Your task to perform on an android device: set an alarm Image 0: 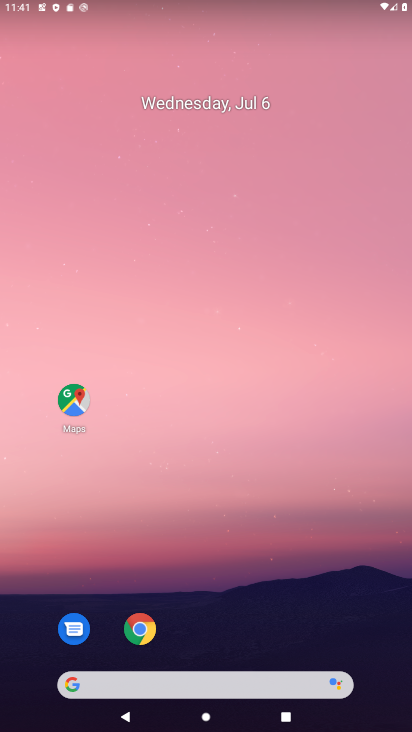
Step 0: drag from (241, 638) to (241, 202)
Your task to perform on an android device: set an alarm Image 1: 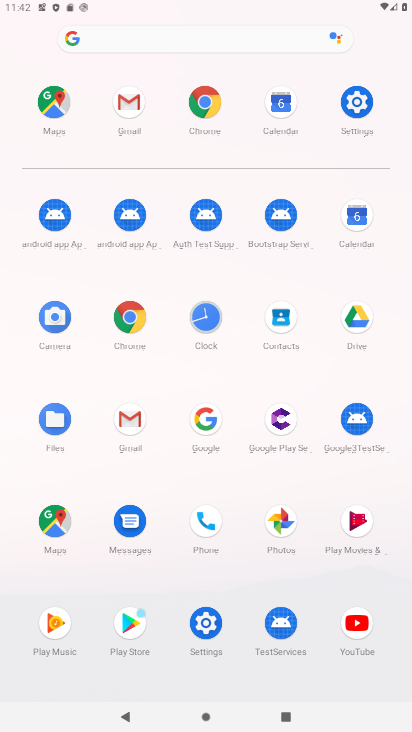
Step 1: click (193, 317)
Your task to perform on an android device: set an alarm Image 2: 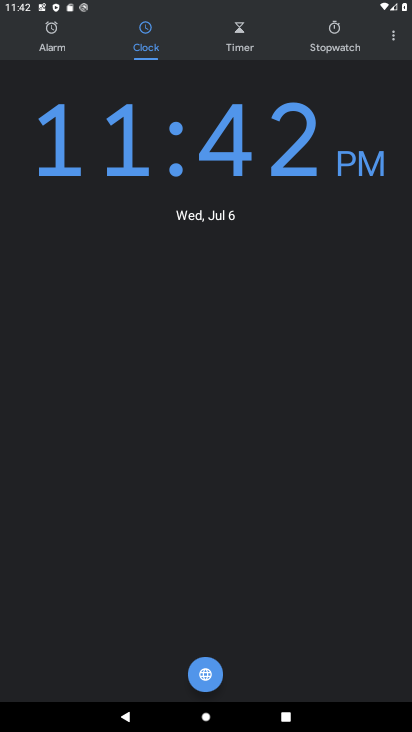
Step 2: click (49, 47)
Your task to perform on an android device: set an alarm Image 3: 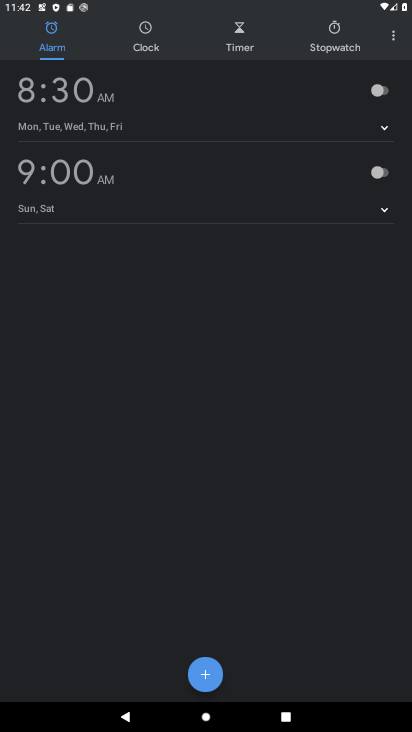
Step 3: click (387, 97)
Your task to perform on an android device: set an alarm Image 4: 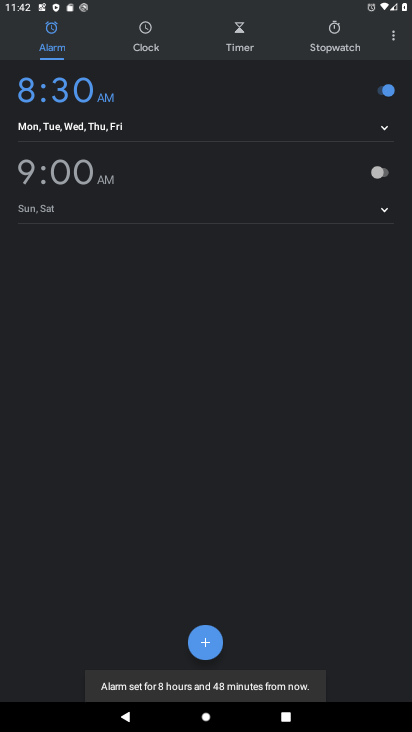
Step 4: task complete